Your task to perform on an android device: turn off location history Image 0: 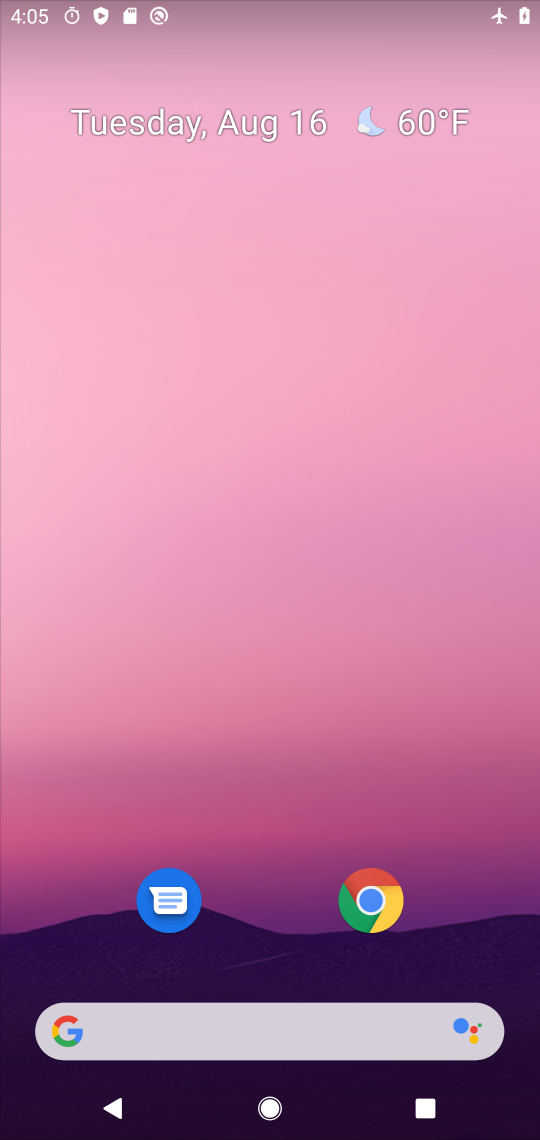
Step 0: drag from (301, 910) to (252, 109)
Your task to perform on an android device: turn off location history Image 1: 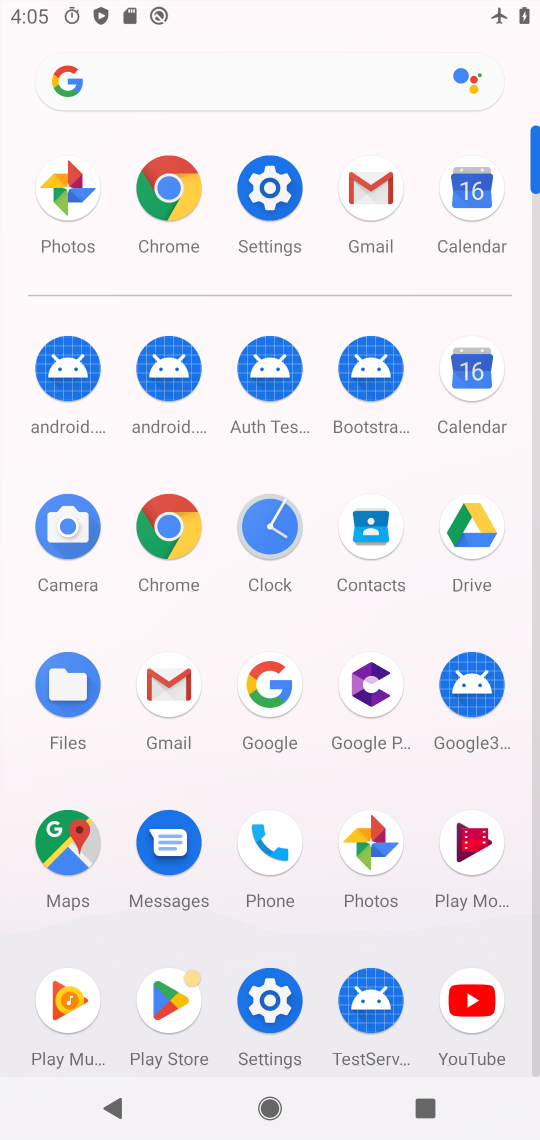
Step 1: click (261, 165)
Your task to perform on an android device: turn off location history Image 2: 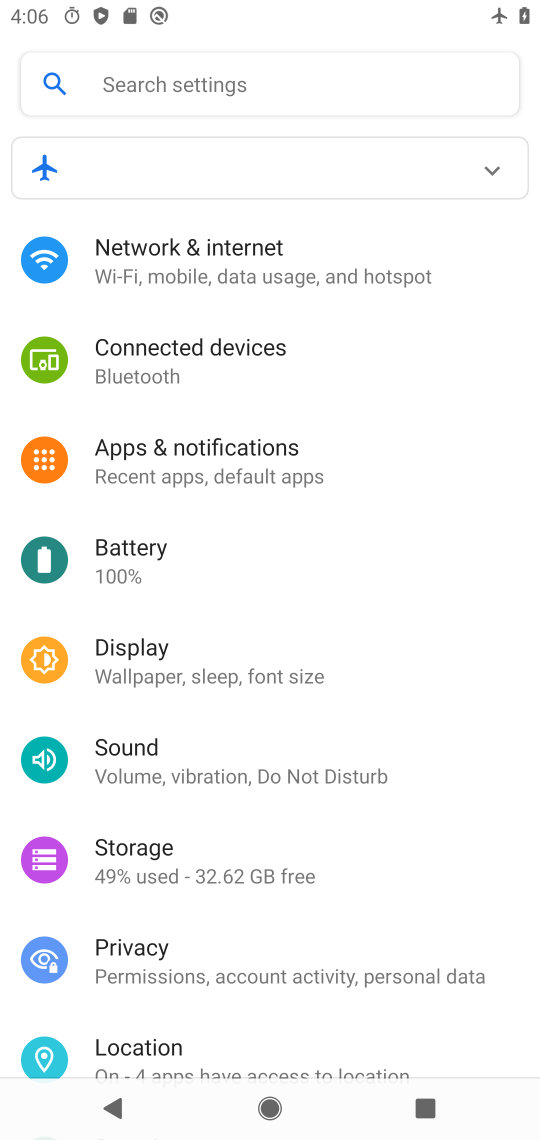
Step 2: click (151, 1050)
Your task to perform on an android device: turn off location history Image 3: 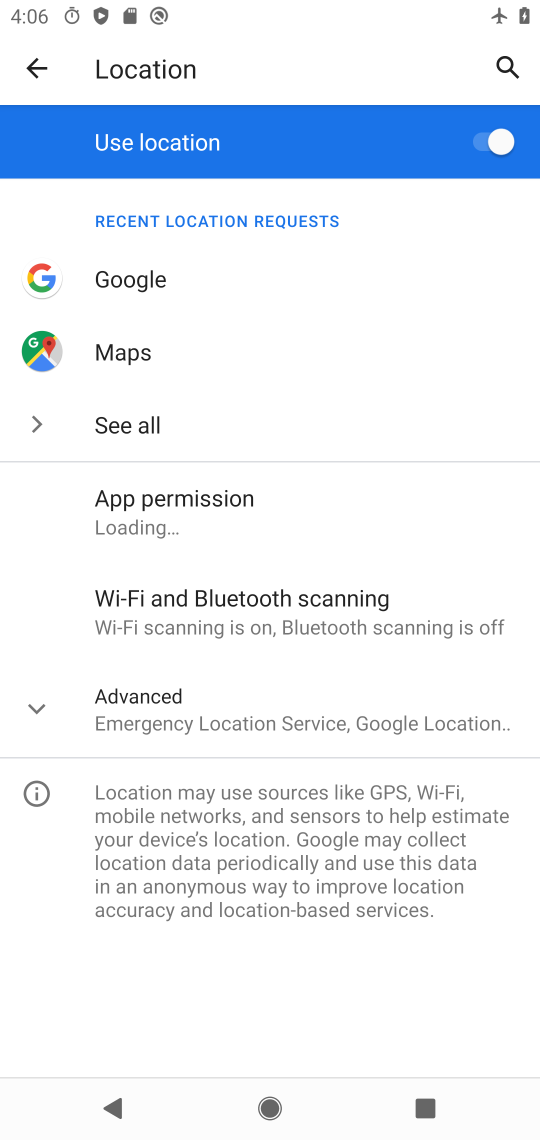
Step 3: click (241, 708)
Your task to perform on an android device: turn off location history Image 4: 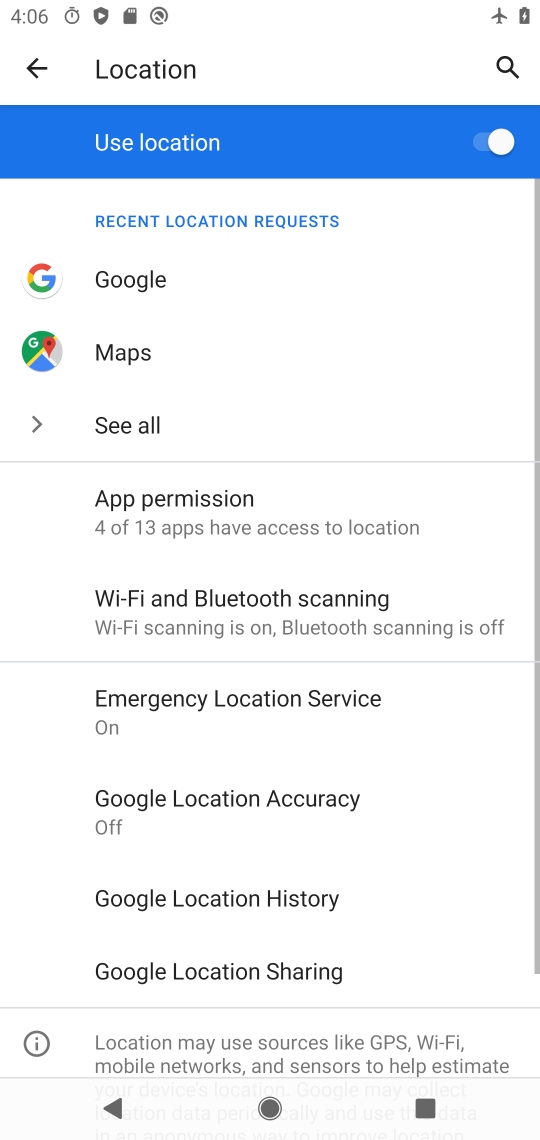
Step 4: click (304, 897)
Your task to perform on an android device: turn off location history Image 5: 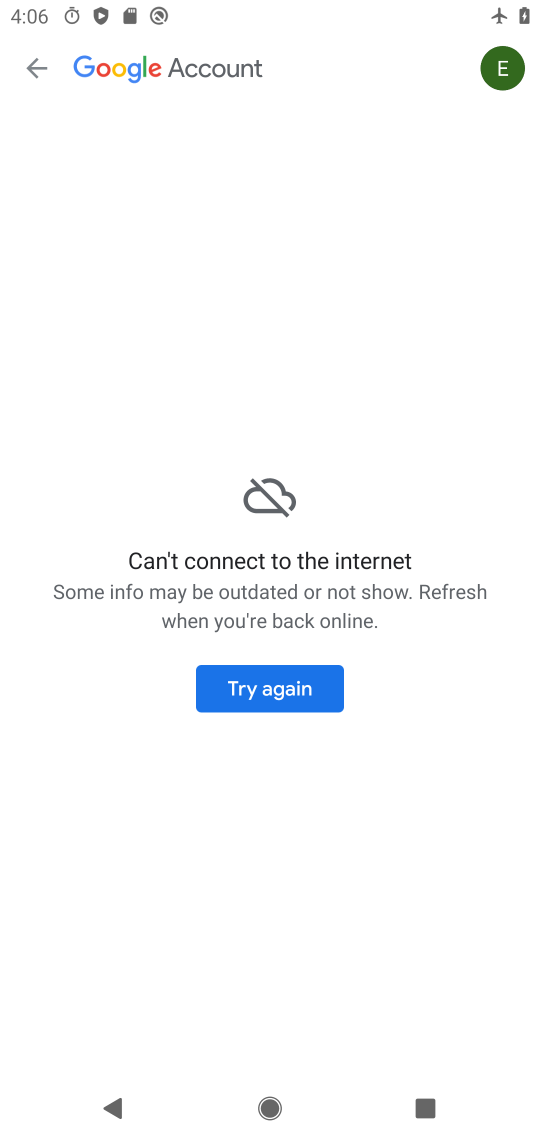
Step 5: task complete